Your task to perform on an android device: Clear all items from cart on walmart. Image 0: 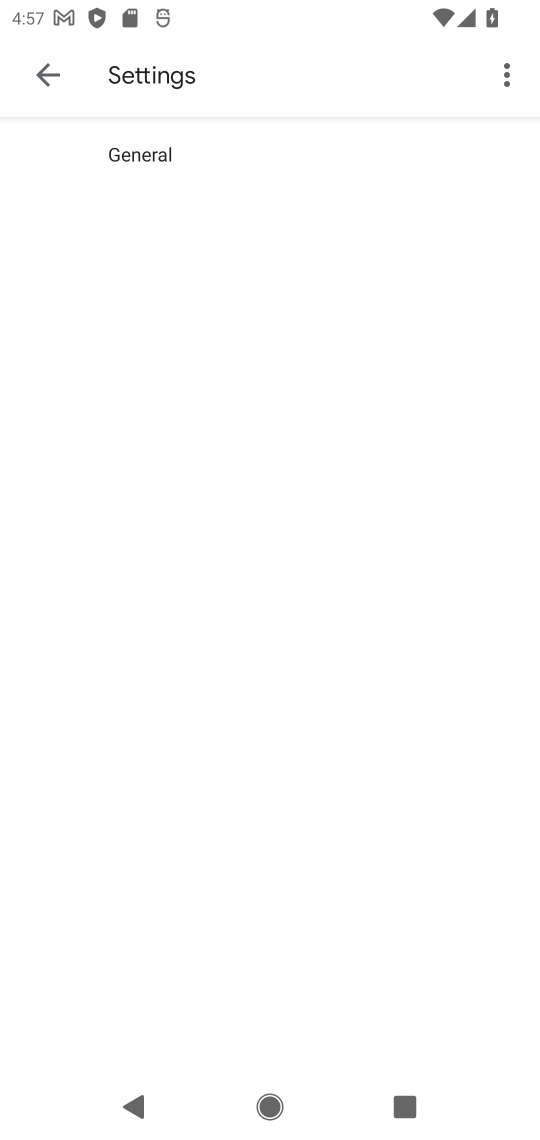
Step 0: press home button
Your task to perform on an android device: Clear all items from cart on walmart. Image 1: 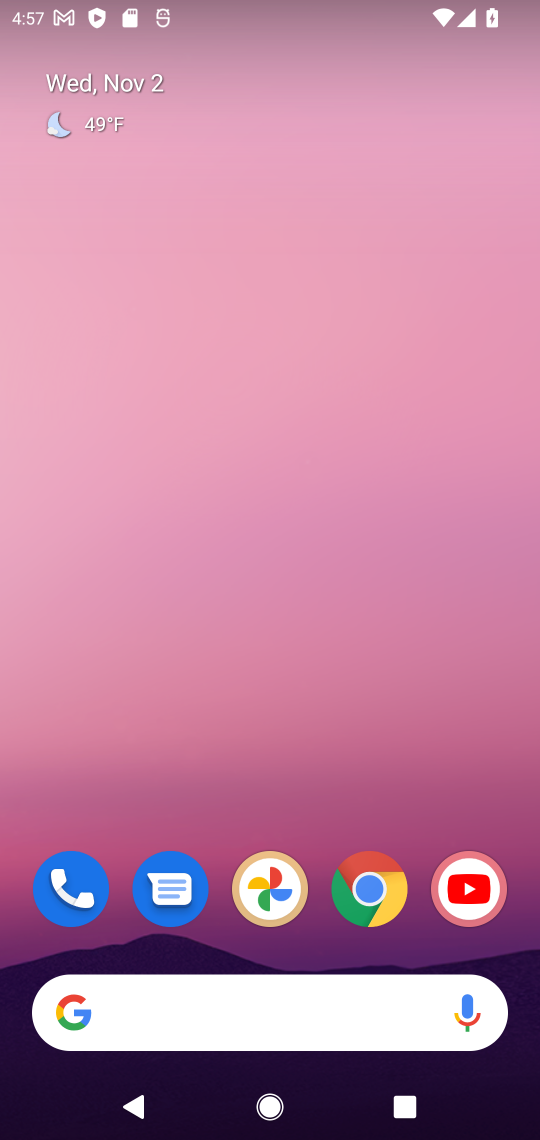
Step 1: click (364, 885)
Your task to perform on an android device: Clear all items from cart on walmart. Image 2: 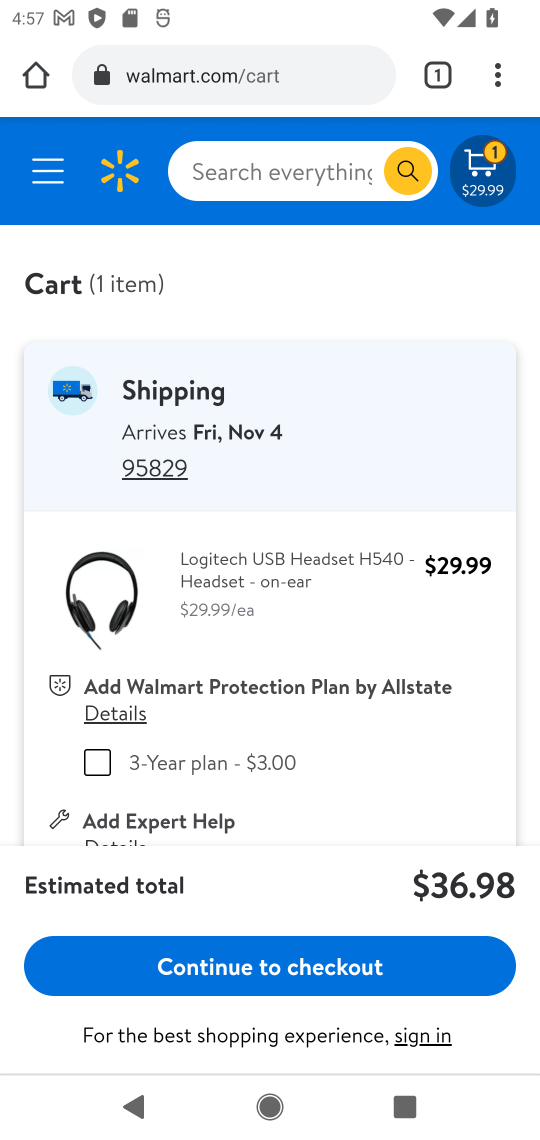
Step 2: click (487, 175)
Your task to perform on an android device: Clear all items from cart on walmart. Image 3: 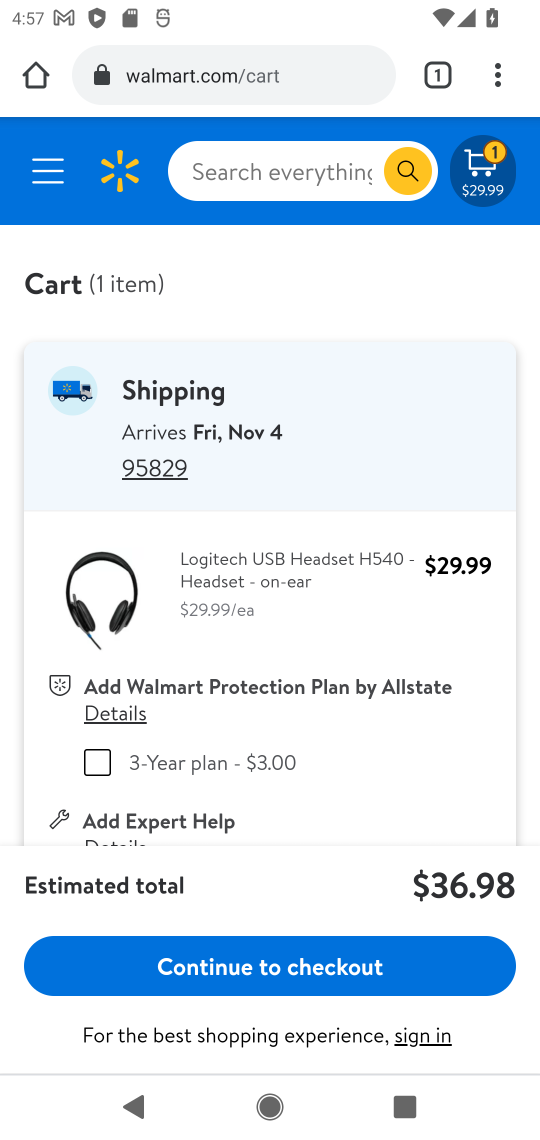
Step 3: click (487, 175)
Your task to perform on an android device: Clear all items from cart on walmart. Image 4: 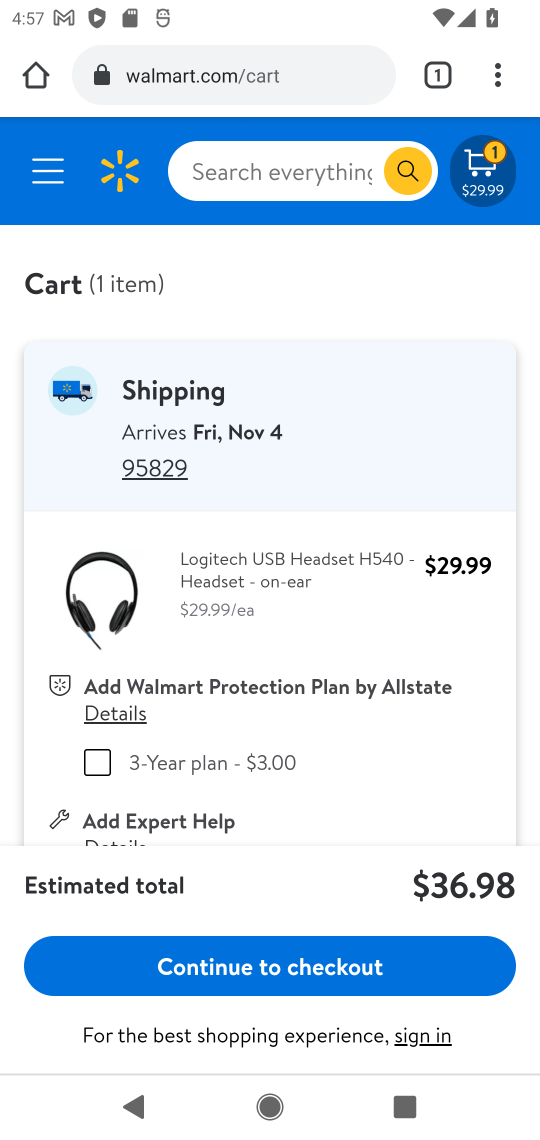
Step 4: drag from (300, 776) to (439, 408)
Your task to perform on an android device: Clear all items from cart on walmart. Image 5: 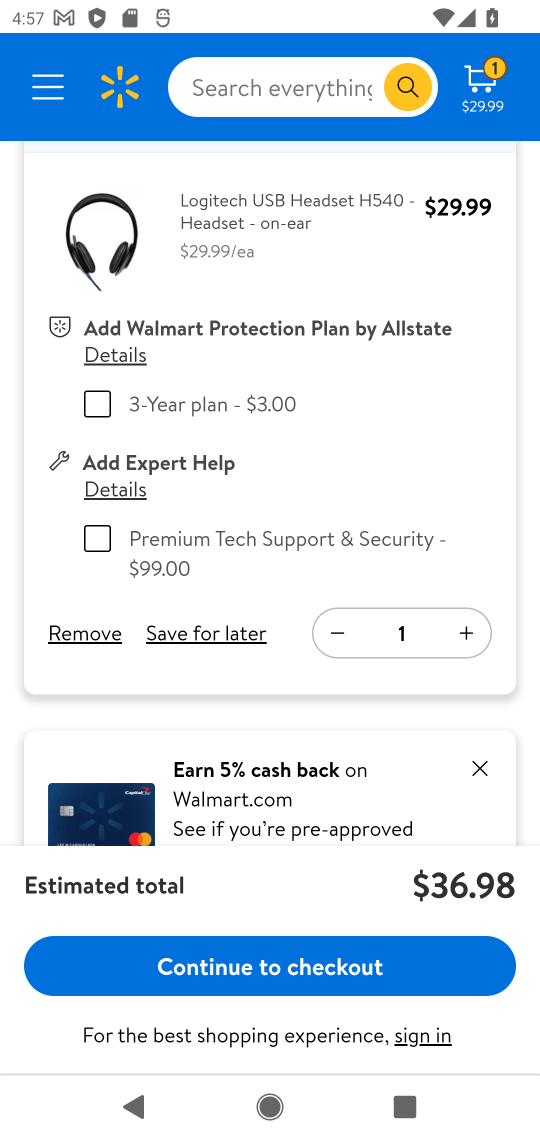
Step 5: click (86, 625)
Your task to perform on an android device: Clear all items from cart on walmart. Image 6: 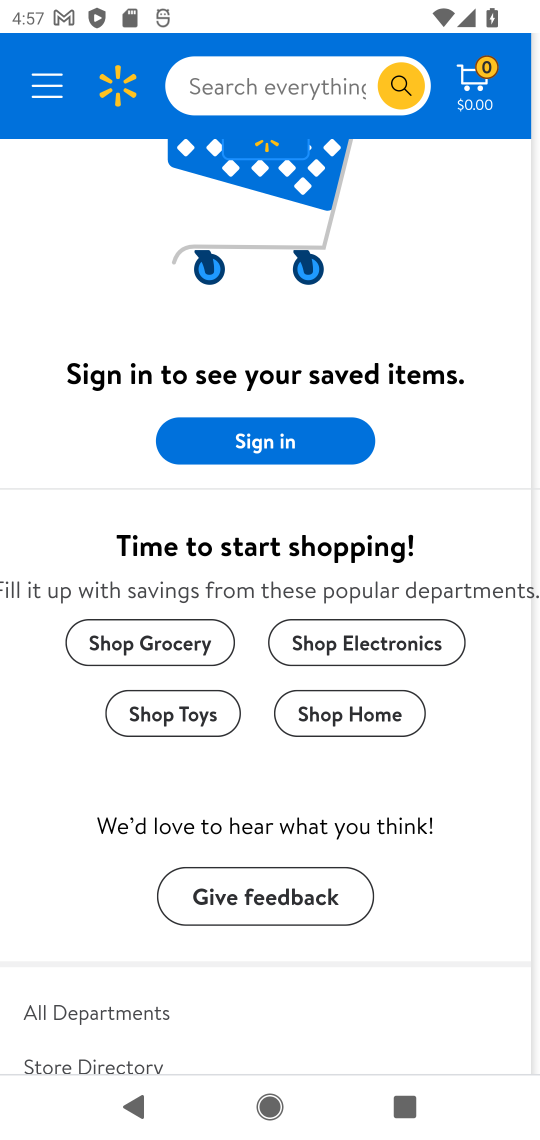
Step 6: task complete